Your task to perform on an android device: Open Google Maps Image 0: 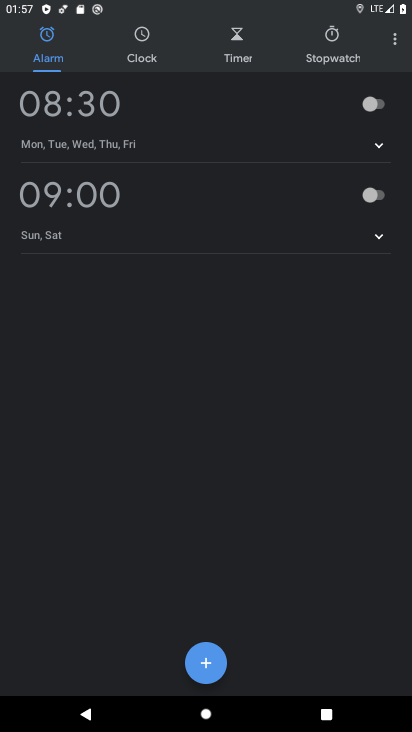
Step 0: press home button
Your task to perform on an android device: Open Google Maps Image 1: 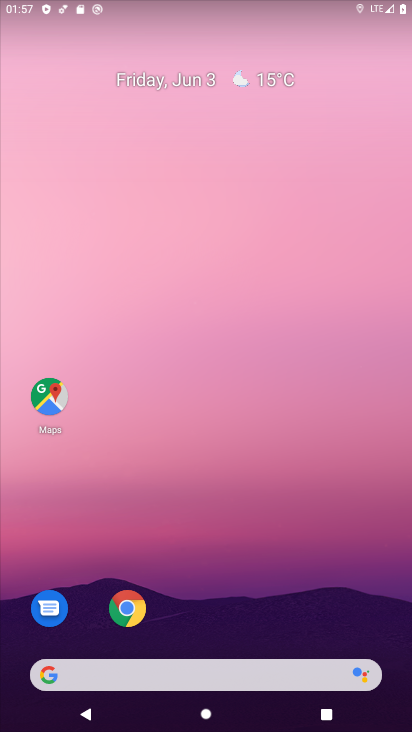
Step 1: click (44, 406)
Your task to perform on an android device: Open Google Maps Image 2: 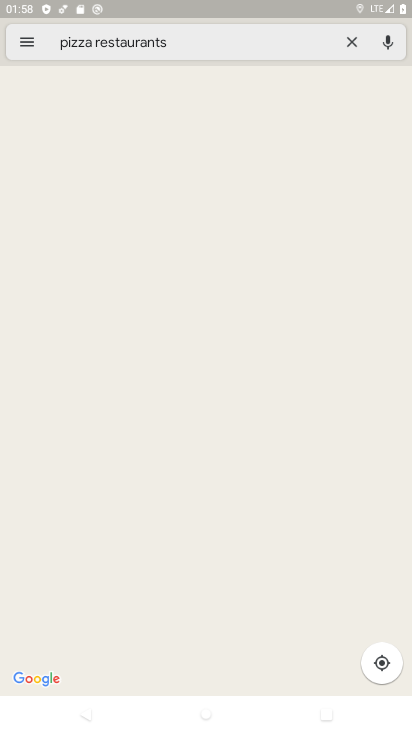
Step 2: task complete